Your task to perform on an android device: Open Youtube and go to the subscriptions tab Image 0: 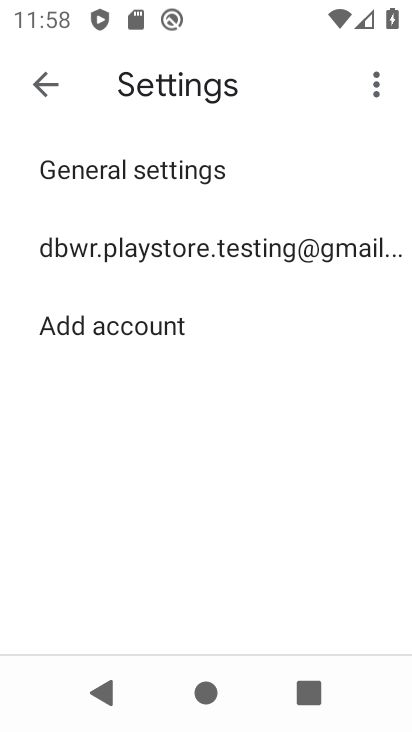
Step 0: press home button
Your task to perform on an android device: Open Youtube and go to the subscriptions tab Image 1: 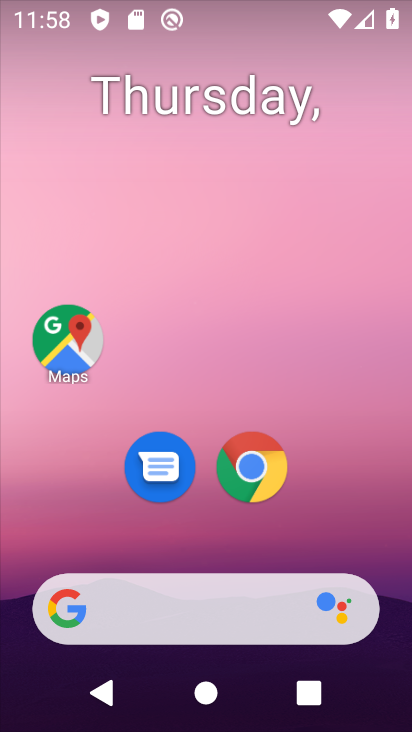
Step 1: drag from (344, 463) to (262, 0)
Your task to perform on an android device: Open Youtube and go to the subscriptions tab Image 2: 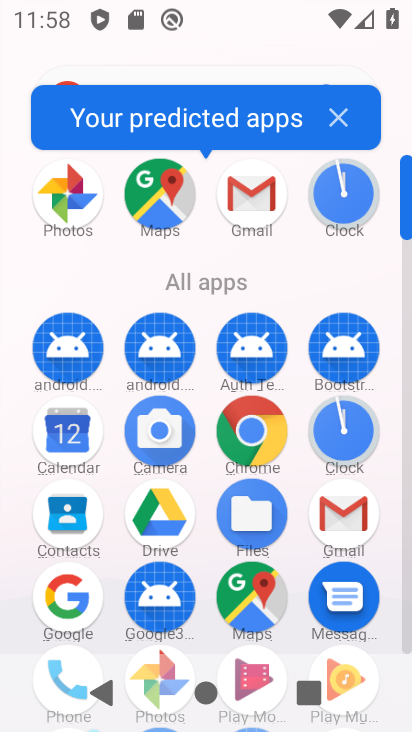
Step 2: drag from (292, 570) to (259, 217)
Your task to perform on an android device: Open Youtube and go to the subscriptions tab Image 3: 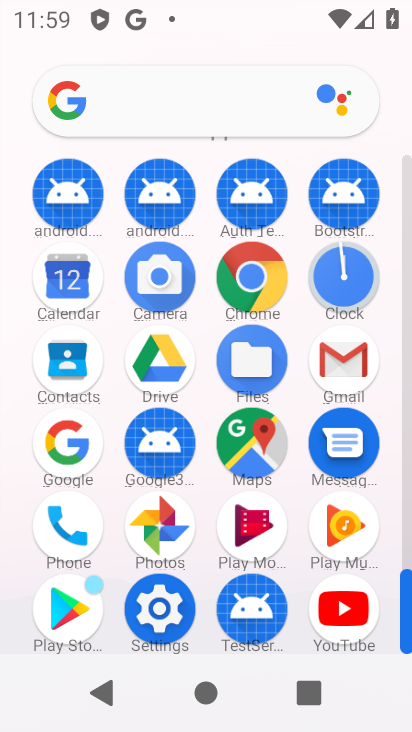
Step 3: click (344, 608)
Your task to perform on an android device: Open Youtube and go to the subscriptions tab Image 4: 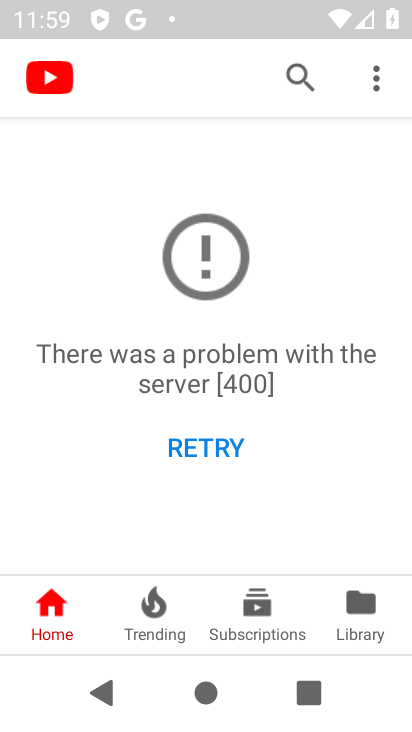
Step 4: click (257, 612)
Your task to perform on an android device: Open Youtube and go to the subscriptions tab Image 5: 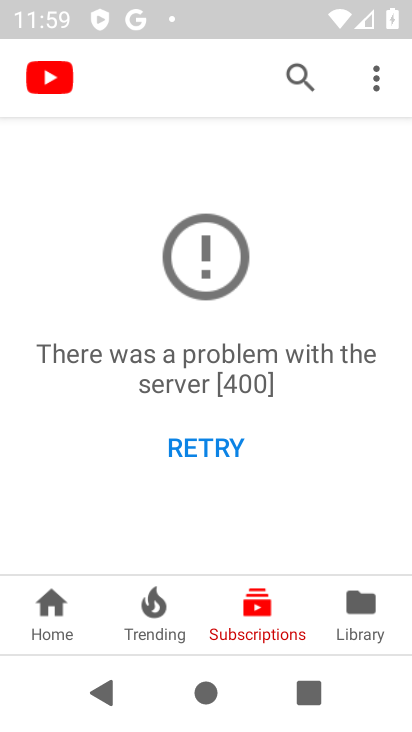
Step 5: task complete